Your task to perform on an android device: turn on notifications settings in the gmail app Image 0: 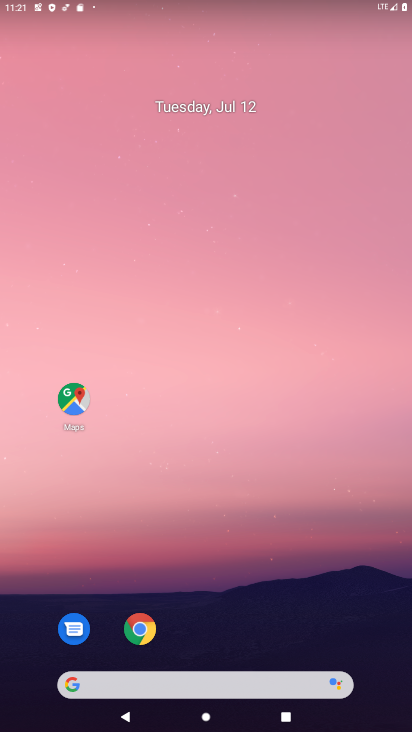
Step 0: press home button
Your task to perform on an android device: turn on notifications settings in the gmail app Image 1: 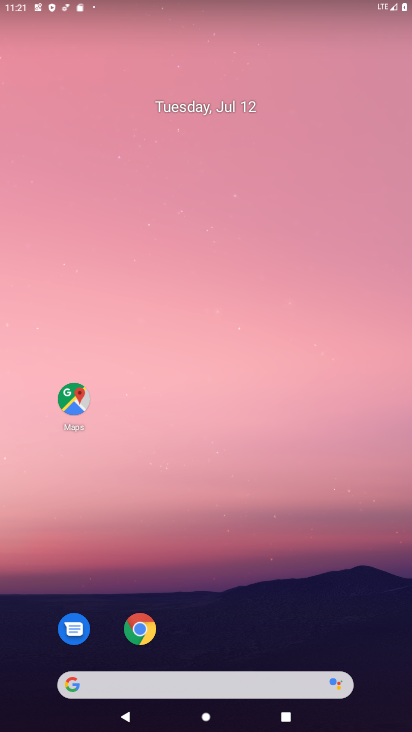
Step 1: drag from (220, 656) to (252, 6)
Your task to perform on an android device: turn on notifications settings in the gmail app Image 2: 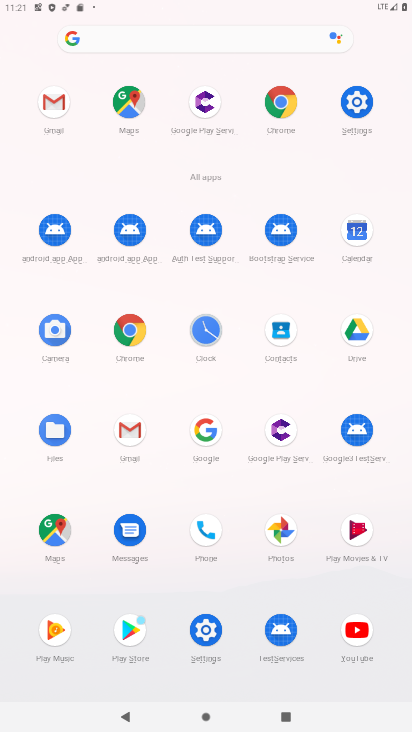
Step 2: click (50, 97)
Your task to perform on an android device: turn on notifications settings in the gmail app Image 3: 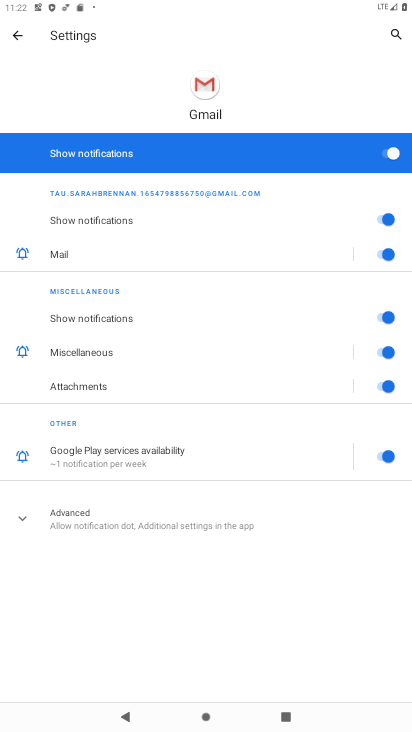
Step 3: task complete